Your task to perform on an android device: open app "Adobe Acrobat Reader: Edit PDF" (install if not already installed) and enter user name: "arthritis@inbox.com" and password: "scythes" Image 0: 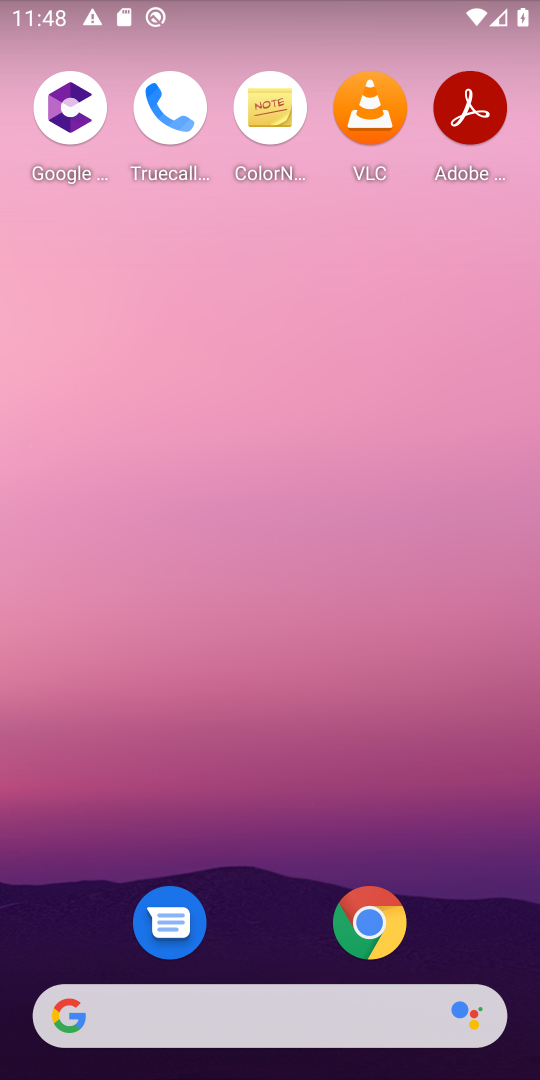
Step 0: drag from (271, 977) to (511, 173)
Your task to perform on an android device: open app "Adobe Acrobat Reader: Edit PDF" (install if not already installed) and enter user name: "arthritis@inbox.com" and password: "scythes" Image 1: 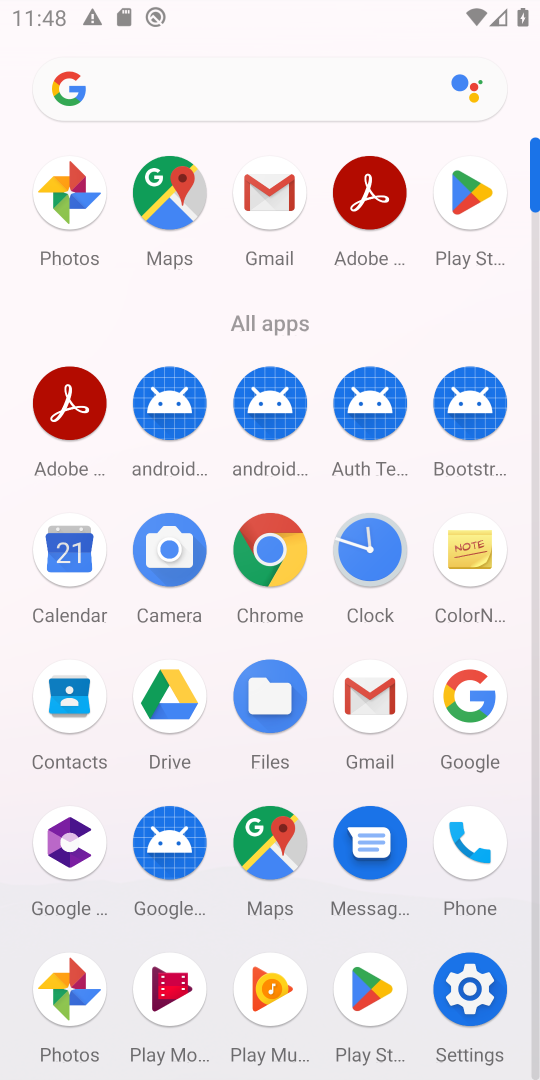
Step 1: click (377, 201)
Your task to perform on an android device: open app "Adobe Acrobat Reader: Edit PDF" (install if not already installed) and enter user name: "arthritis@inbox.com" and password: "scythes" Image 2: 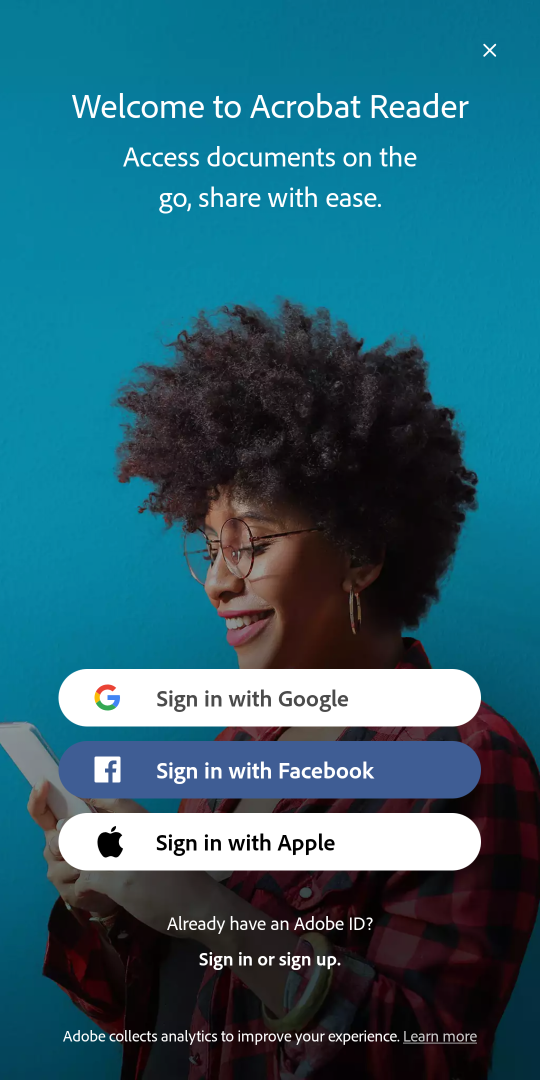
Step 2: click (241, 957)
Your task to perform on an android device: open app "Adobe Acrobat Reader: Edit PDF" (install if not already installed) and enter user name: "arthritis@inbox.com" and password: "scythes" Image 3: 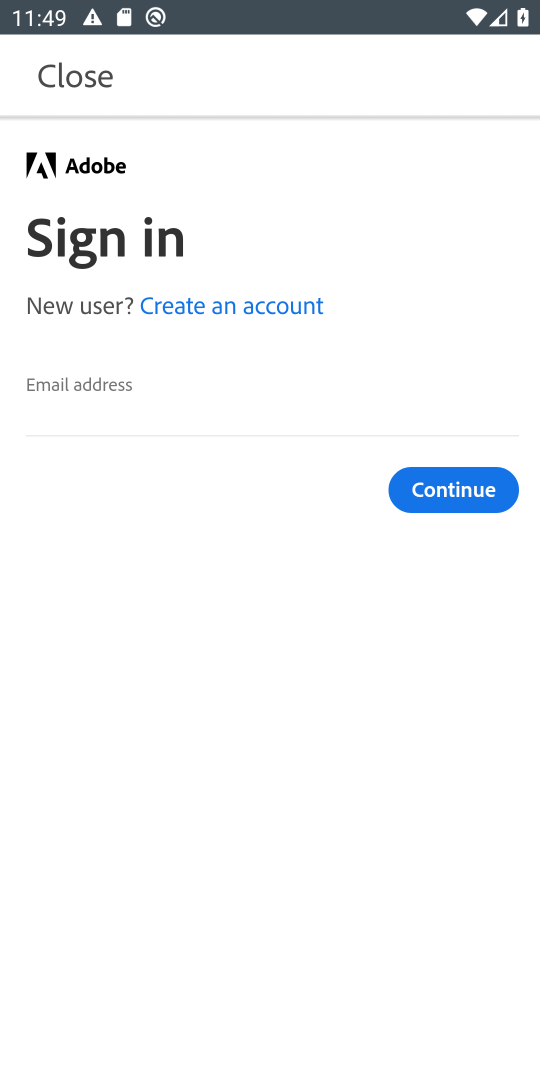
Step 3: click (102, 393)
Your task to perform on an android device: open app "Adobe Acrobat Reader: Edit PDF" (install if not already installed) and enter user name: "arthritis@inbox.com" and password: "scythes" Image 4: 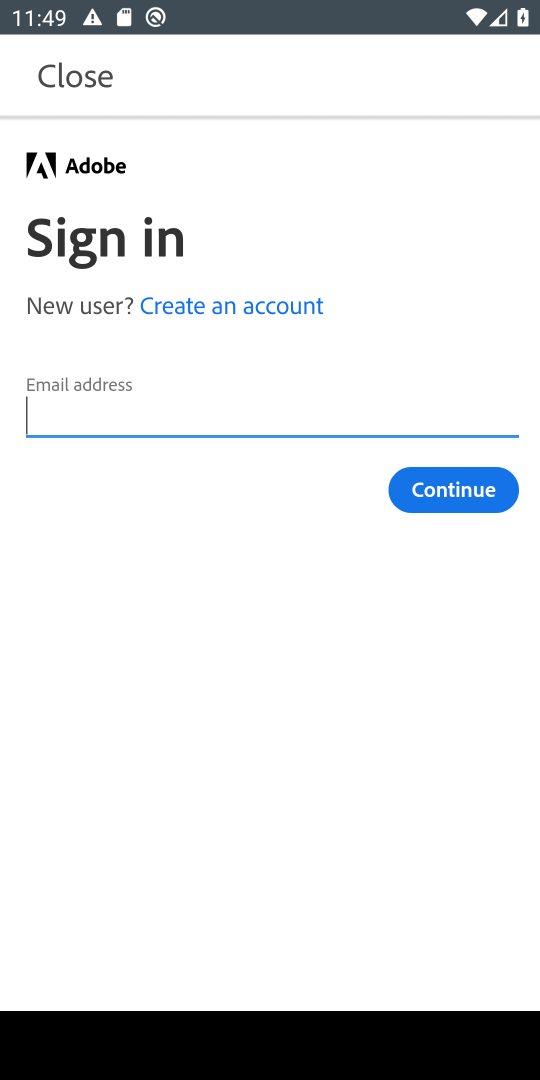
Step 4: type "rthritis@inbox.com"
Your task to perform on an android device: open app "Adobe Acrobat Reader: Edit PDF" (install if not already installed) and enter user name: "arthritis@inbox.com" and password: "scythes" Image 5: 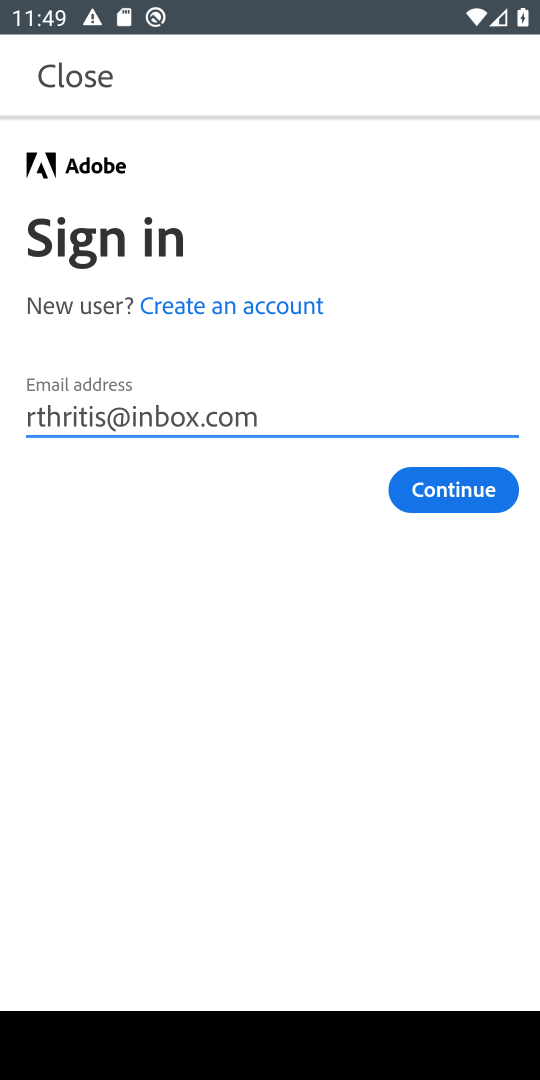
Step 5: task complete